Your task to perform on an android device: Open internet settings Image 0: 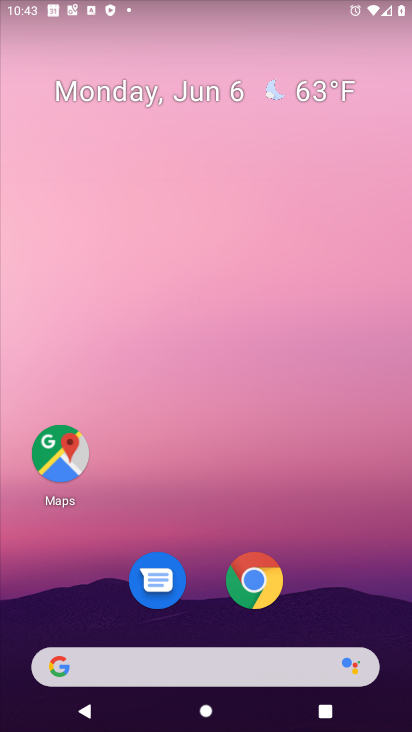
Step 0: drag from (406, 279) to (14, 9)
Your task to perform on an android device: Open internet settings Image 1: 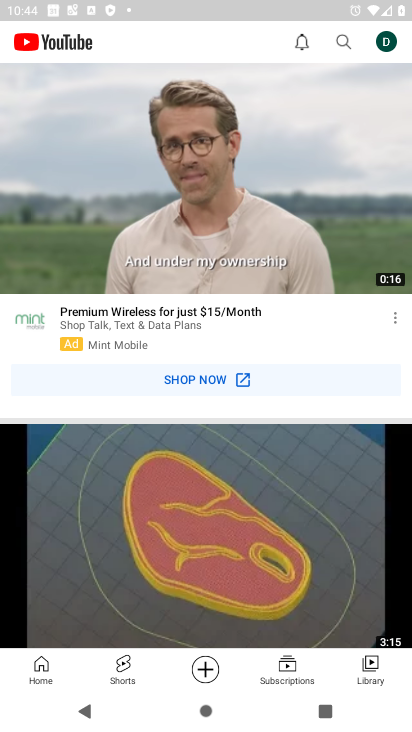
Step 1: press home button
Your task to perform on an android device: Open internet settings Image 2: 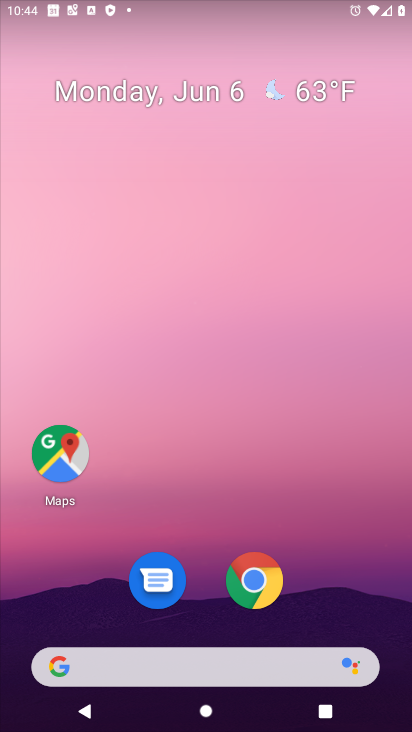
Step 2: drag from (357, 572) to (406, 328)
Your task to perform on an android device: Open internet settings Image 3: 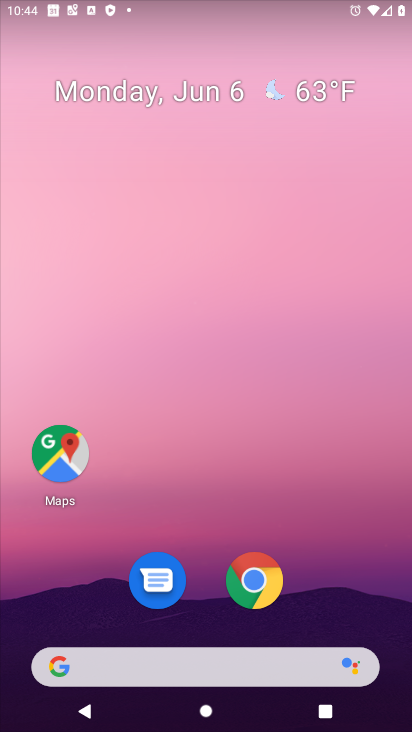
Step 3: drag from (325, 619) to (402, 74)
Your task to perform on an android device: Open internet settings Image 4: 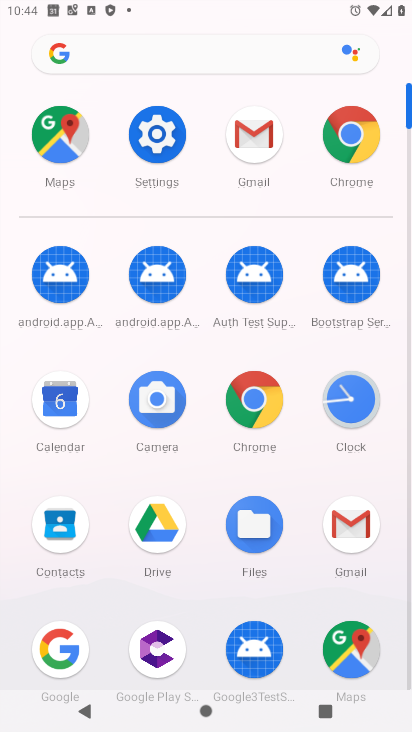
Step 4: click (165, 136)
Your task to perform on an android device: Open internet settings Image 5: 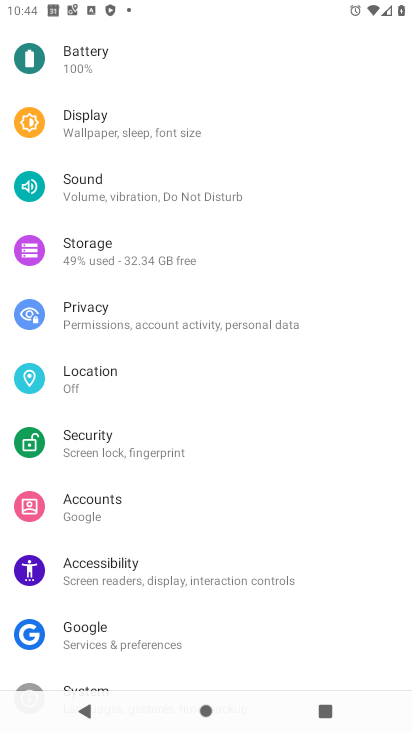
Step 5: drag from (165, 136) to (147, 703)
Your task to perform on an android device: Open internet settings Image 6: 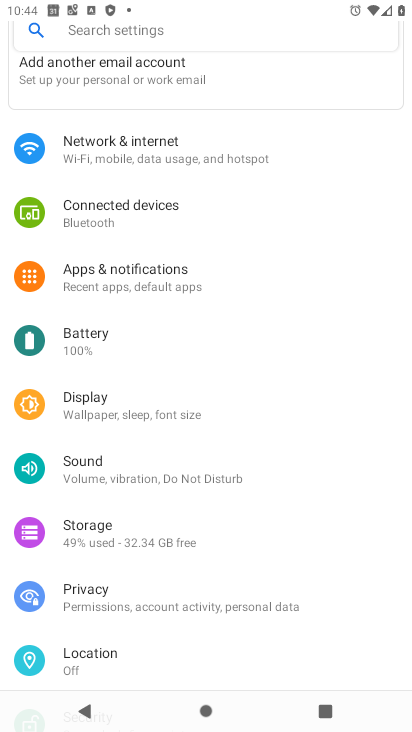
Step 6: drag from (140, 232) to (123, 677)
Your task to perform on an android device: Open internet settings Image 7: 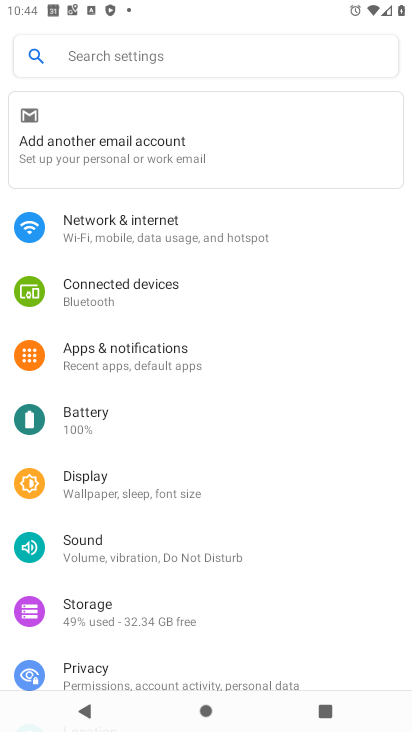
Step 7: click (135, 225)
Your task to perform on an android device: Open internet settings Image 8: 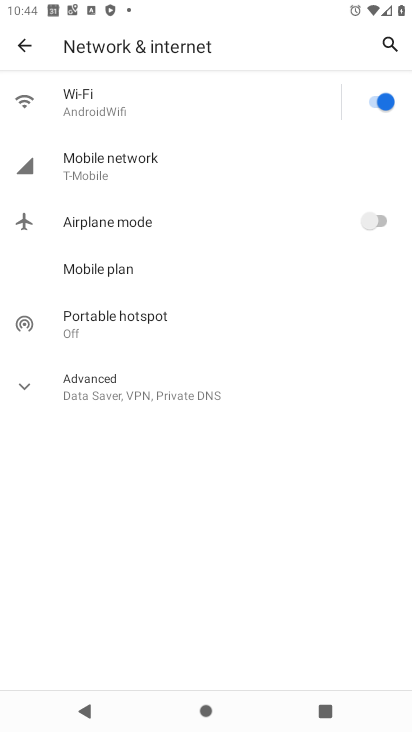
Step 8: task complete